Your task to perform on an android device: set an alarm Image 0: 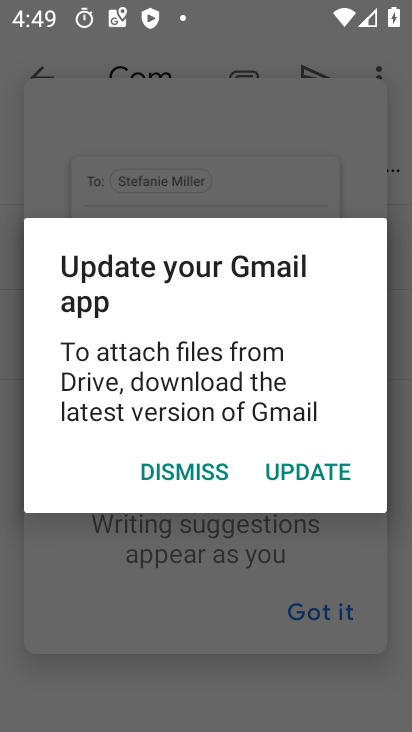
Step 0: press home button
Your task to perform on an android device: set an alarm Image 1: 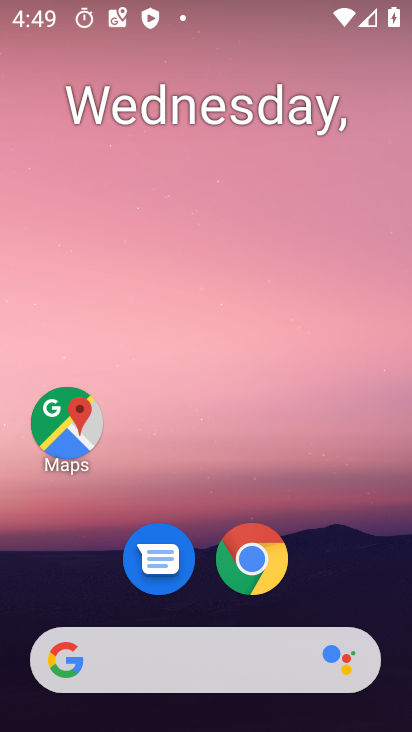
Step 1: drag from (366, 553) to (271, 143)
Your task to perform on an android device: set an alarm Image 2: 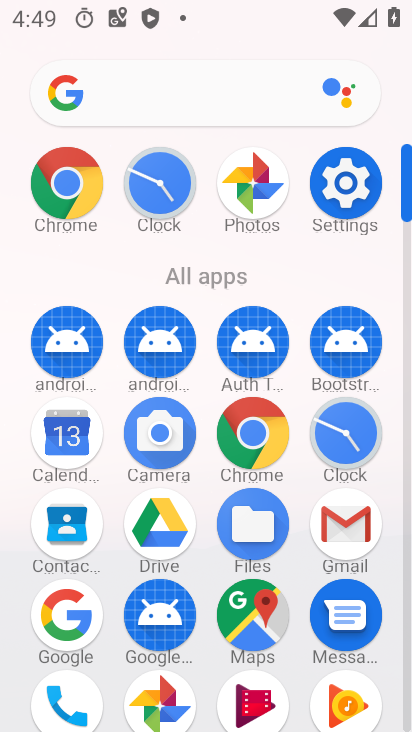
Step 2: click (166, 207)
Your task to perform on an android device: set an alarm Image 3: 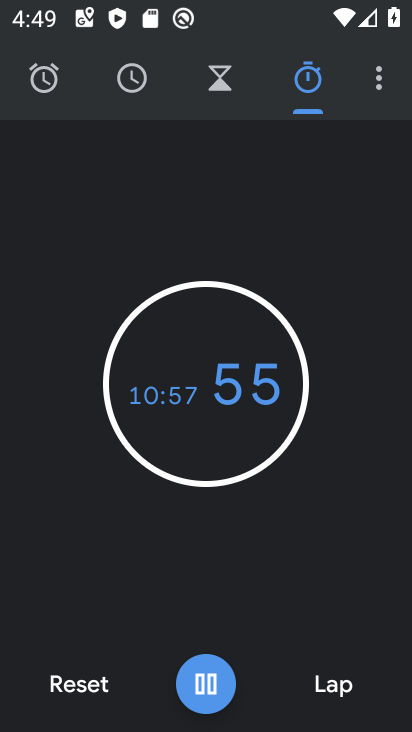
Step 3: click (45, 84)
Your task to perform on an android device: set an alarm Image 4: 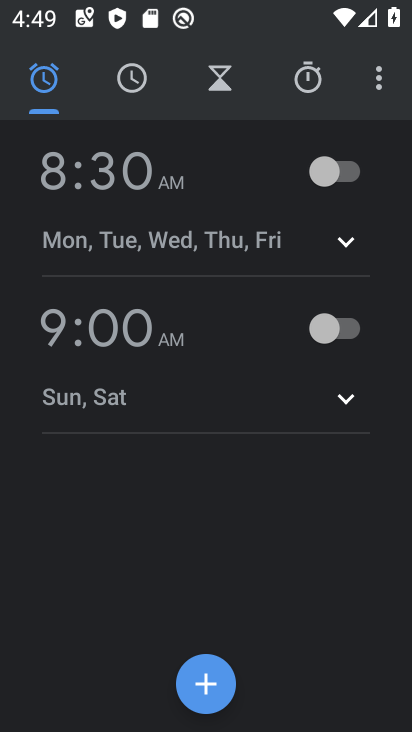
Step 4: task complete